Your task to perform on an android device: turn on wifi Image 0: 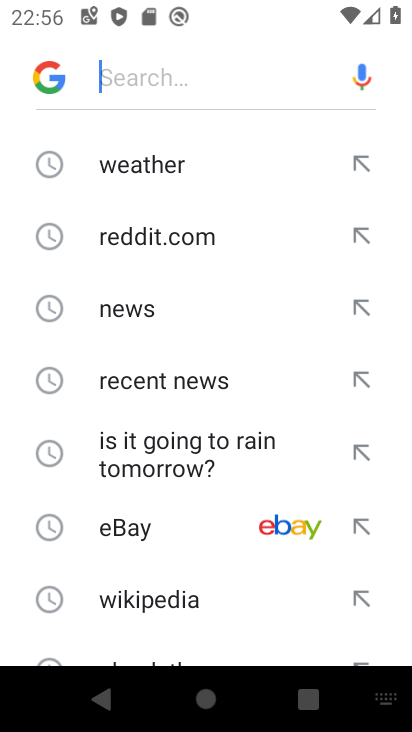
Step 0: press home button
Your task to perform on an android device: turn on wifi Image 1: 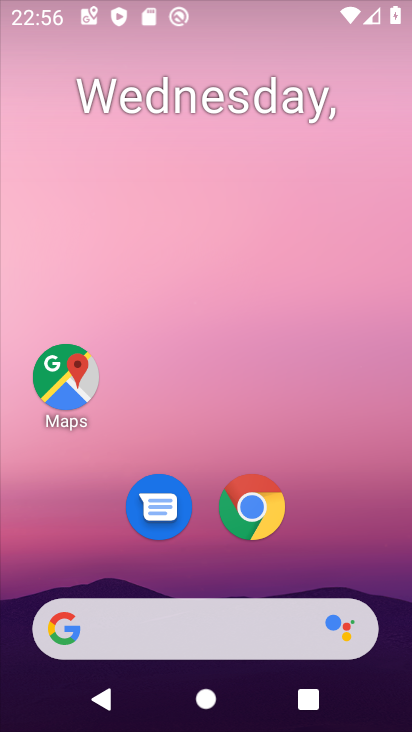
Step 1: drag from (245, 476) to (272, 229)
Your task to perform on an android device: turn on wifi Image 2: 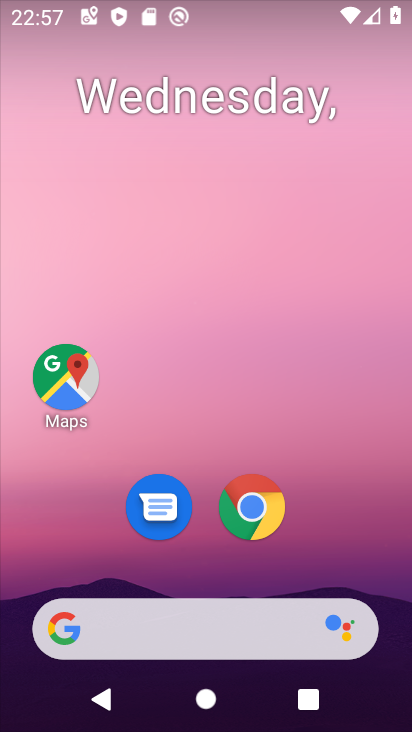
Step 2: drag from (301, 560) to (311, 112)
Your task to perform on an android device: turn on wifi Image 3: 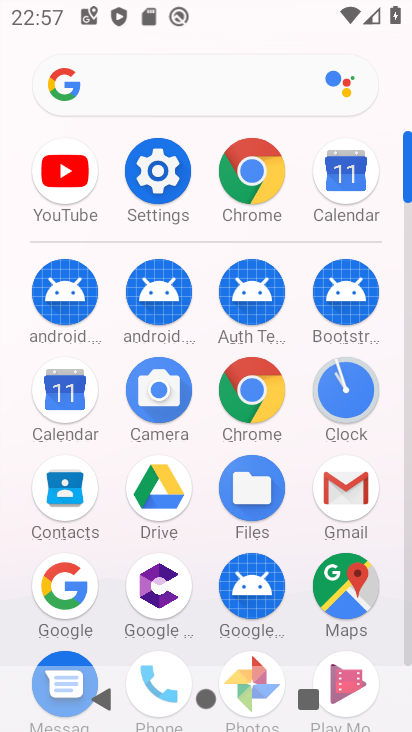
Step 3: click (154, 176)
Your task to perform on an android device: turn on wifi Image 4: 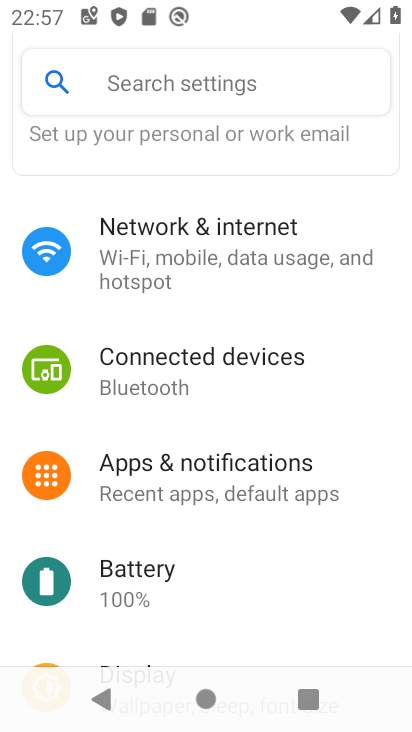
Step 4: drag from (208, 181) to (196, 633)
Your task to perform on an android device: turn on wifi Image 5: 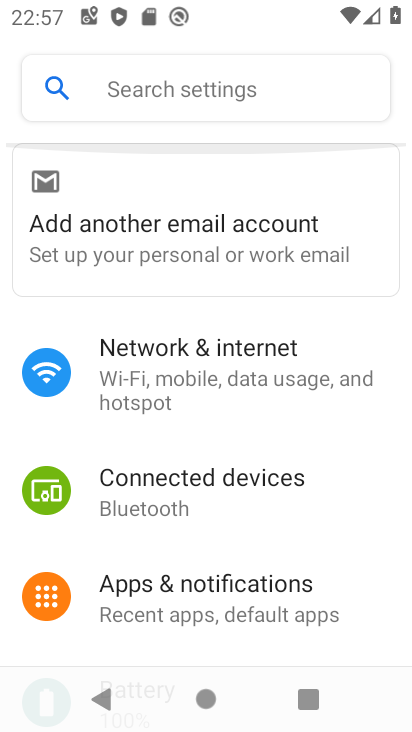
Step 5: click (207, 378)
Your task to perform on an android device: turn on wifi Image 6: 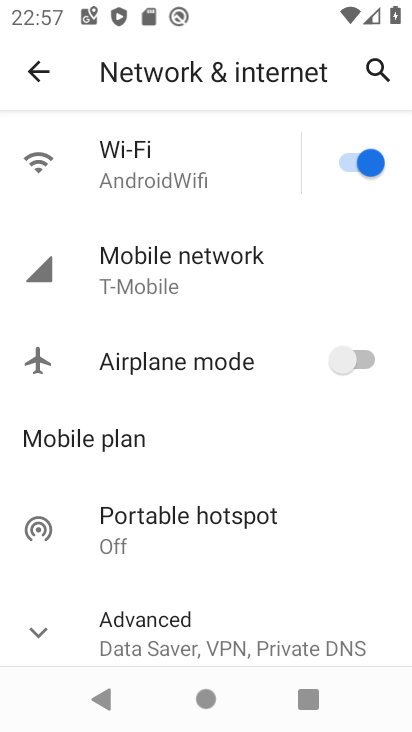
Step 6: task complete